Your task to perform on an android device: read, delete, or share a saved page in the chrome app Image 0: 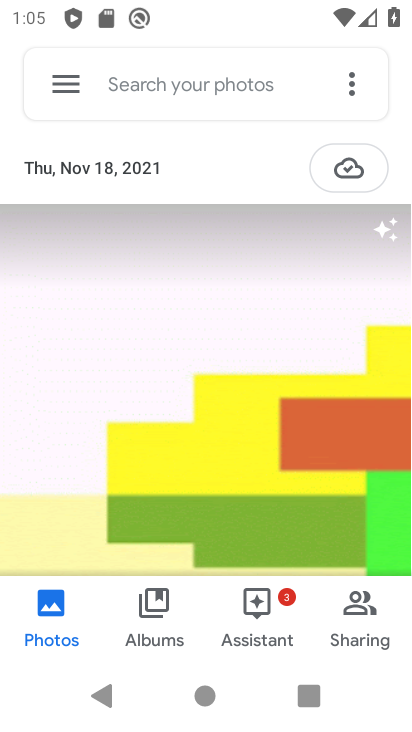
Step 0: press home button
Your task to perform on an android device: read, delete, or share a saved page in the chrome app Image 1: 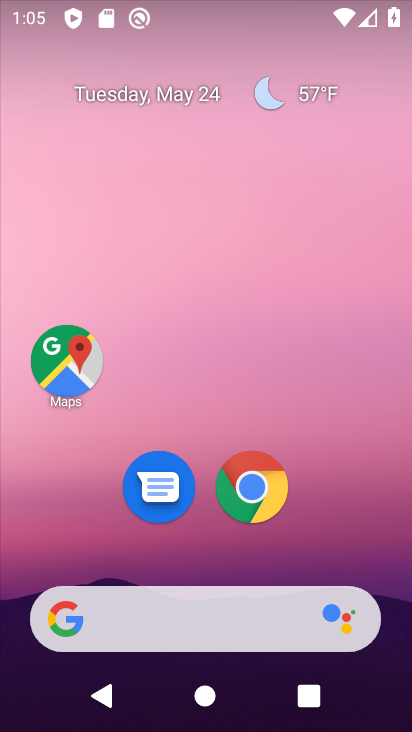
Step 1: click (249, 483)
Your task to perform on an android device: read, delete, or share a saved page in the chrome app Image 2: 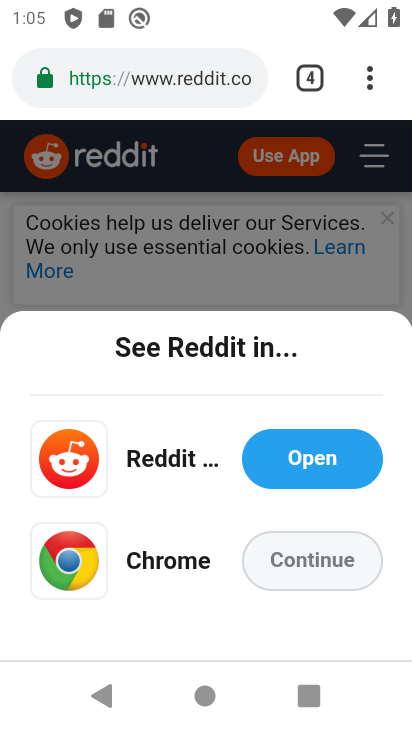
Step 2: click (370, 85)
Your task to perform on an android device: read, delete, or share a saved page in the chrome app Image 3: 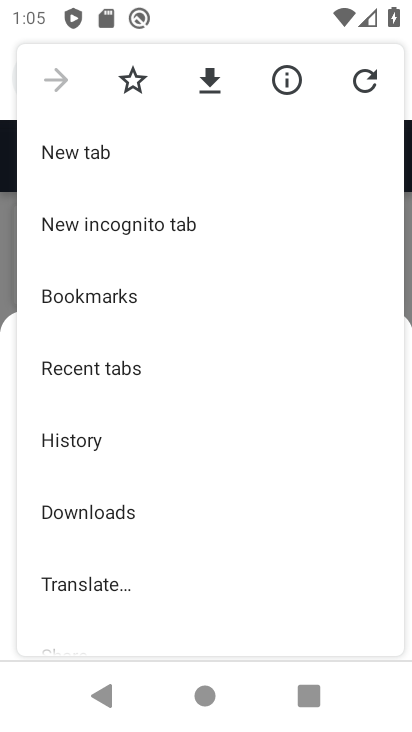
Step 3: drag from (106, 559) to (104, 249)
Your task to perform on an android device: read, delete, or share a saved page in the chrome app Image 4: 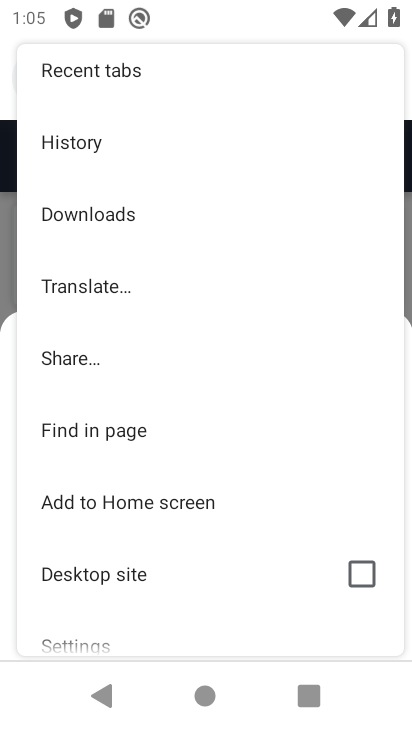
Step 4: click (102, 215)
Your task to perform on an android device: read, delete, or share a saved page in the chrome app Image 5: 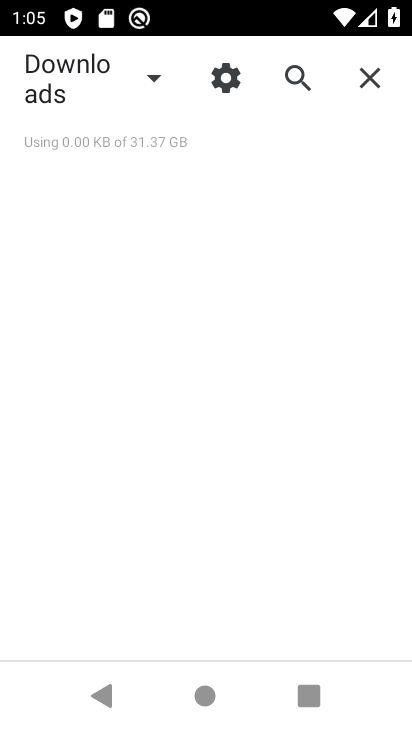
Step 5: click (156, 73)
Your task to perform on an android device: read, delete, or share a saved page in the chrome app Image 6: 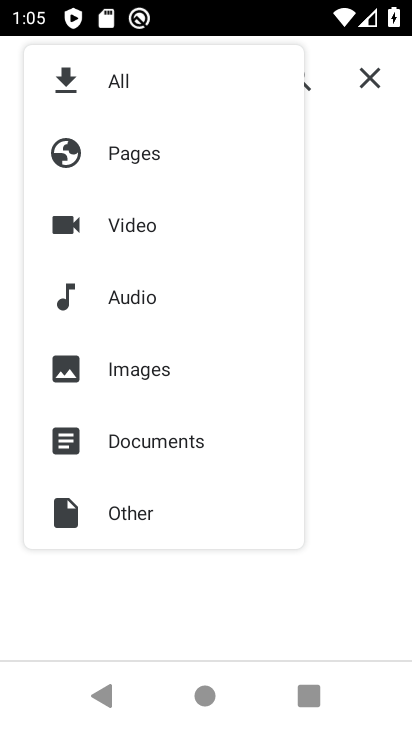
Step 6: click (135, 156)
Your task to perform on an android device: read, delete, or share a saved page in the chrome app Image 7: 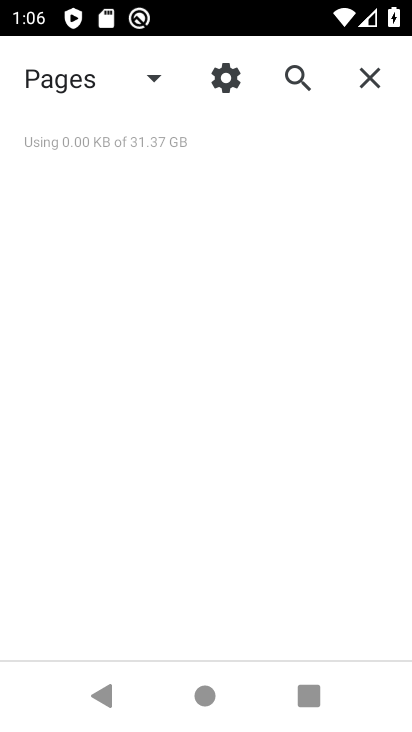
Step 7: task complete